Your task to perform on an android device: turn on airplane mode Image 0: 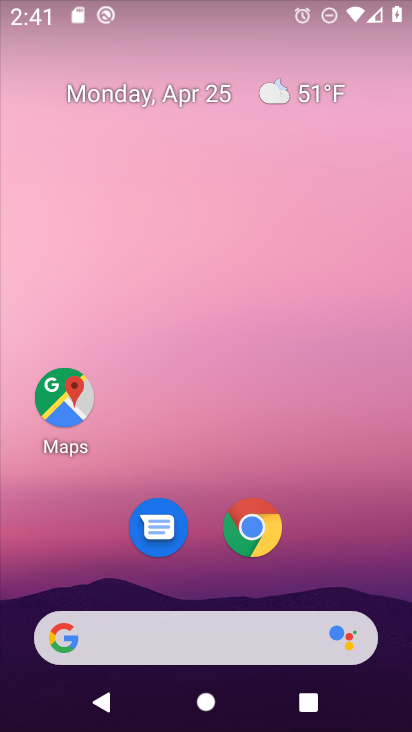
Step 0: drag from (285, 386) to (254, 12)
Your task to perform on an android device: turn on airplane mode Image 1: 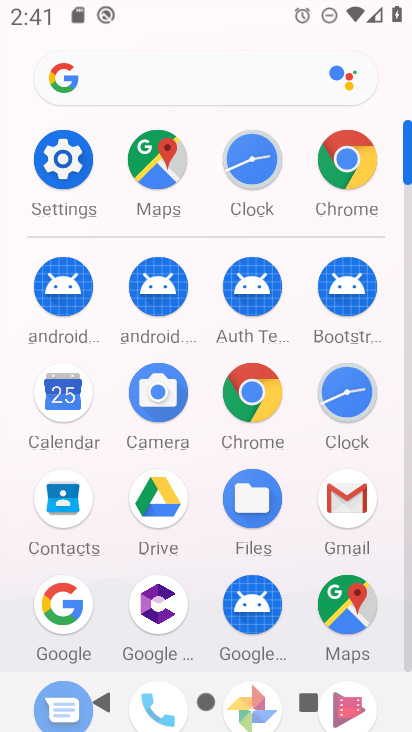
Step 1: drag from (11, 537) to (17, 232)
Your task to perform on an android device: turn on airplane mode Image 2: 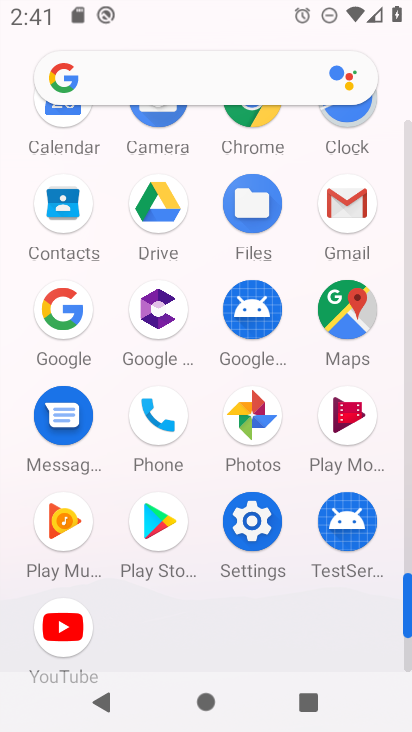
Step 2: click (251, 514)
Your task to perform on an android device: turn on airplane mode Image 3: 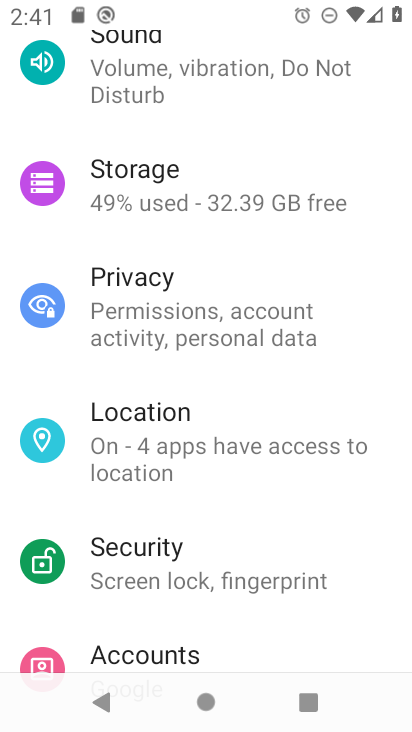
Step 3: drag from (247, 214) to (221, 555)
Your task to perform on an android device: turn on airplane mode Image 4: 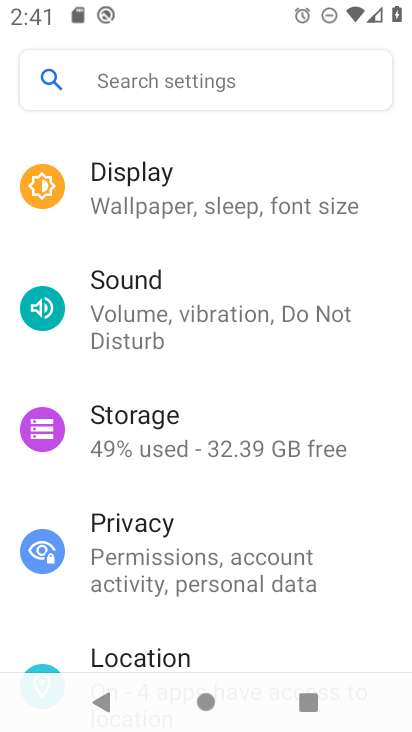
Step 4: drag from (256, 213) to (257, 480)
Your task to perform on an android device: turn on airplane mode Image 5: 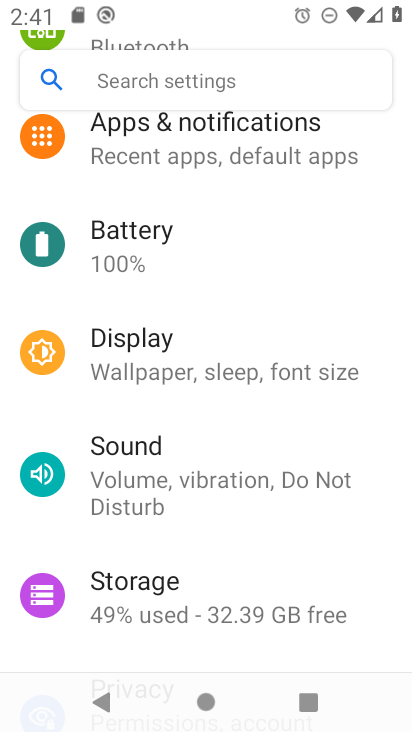
Step 5: drag from (248, 242) to (269, 578)
Your task to perform on an android device: turn on airplane mode Image 6: 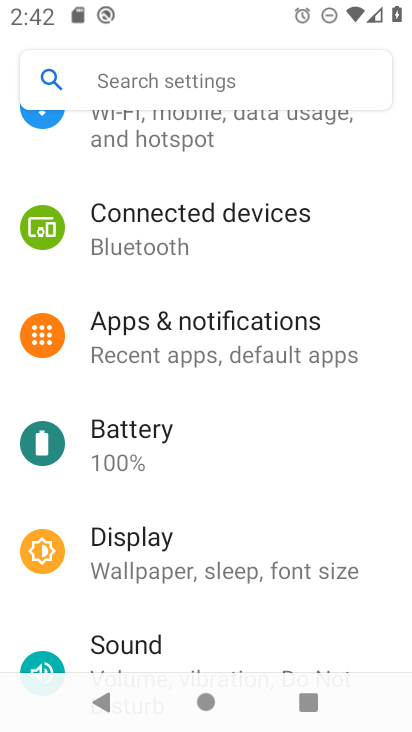
Step 6: drag from (260, 207) to (280, 491)
Your task to perform on an android device: turn on airplane mode Image 7: 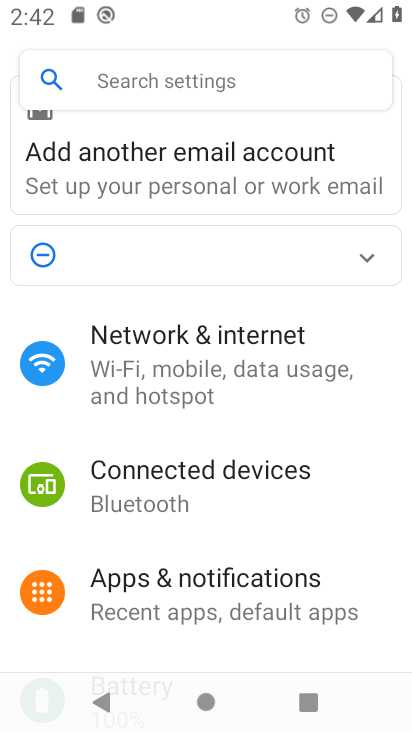
Step 7: click (266, 373)
Your task to perform on an android device: turn on airplane mode Image 8: 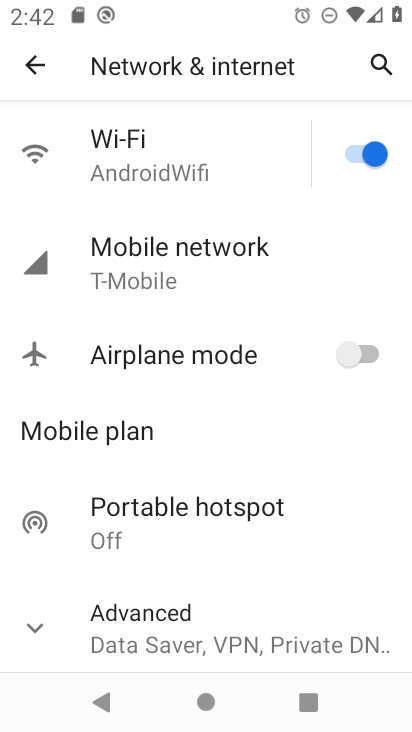
Step 8: click (359, 353)
Your task to perform on an android device: turn on airplane mode Image 9: 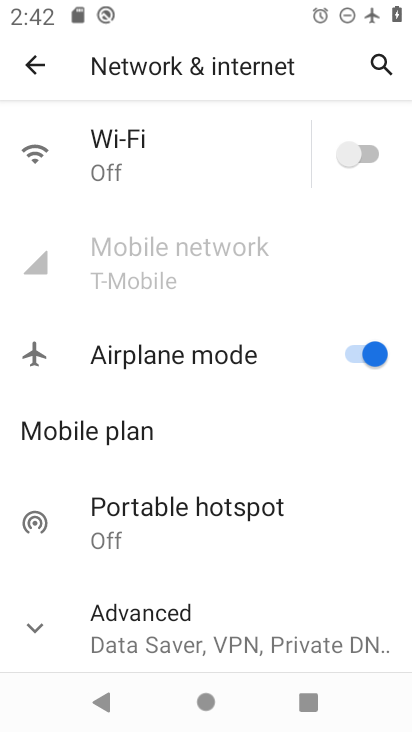
Step 9: task complete